Your task to perform on an android device: Show me recent news Image 0: 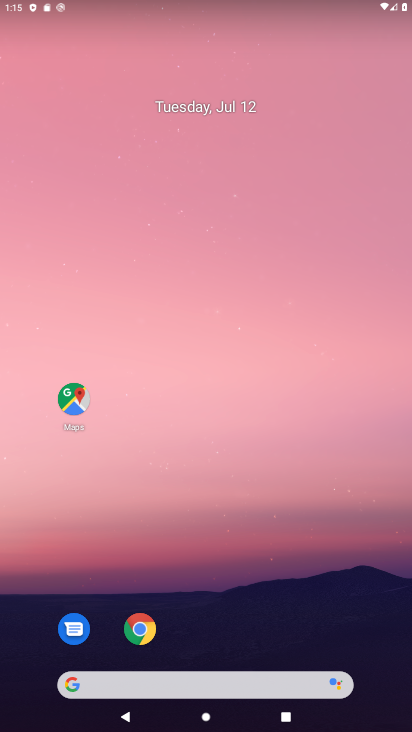
Step 0: click (148, 687)
Your task to perform on an android device: Show me recent news Image 1: 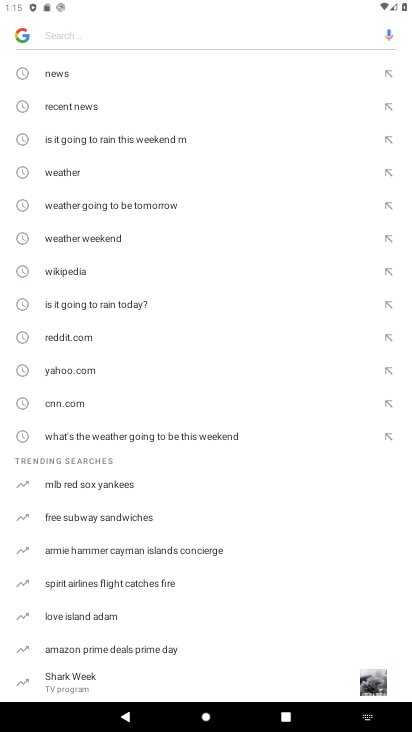
Step 1: click (77, 104)
Your task to perform on an android device: Show me recent news Image 2: 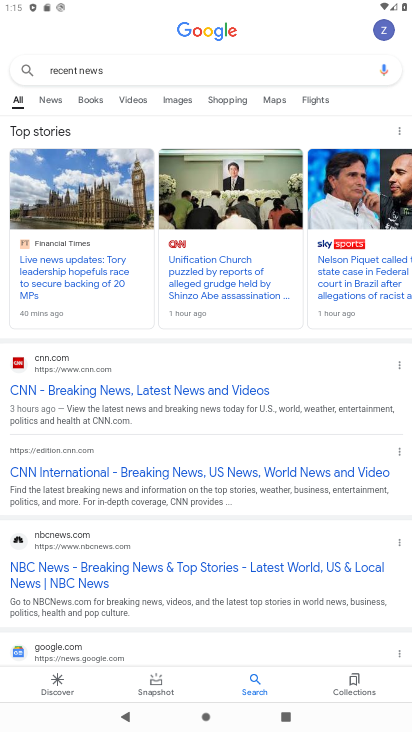
Step 2: task complete